Your task to perform on an android device: Search for Mexican restaurants on Maps Image 0: 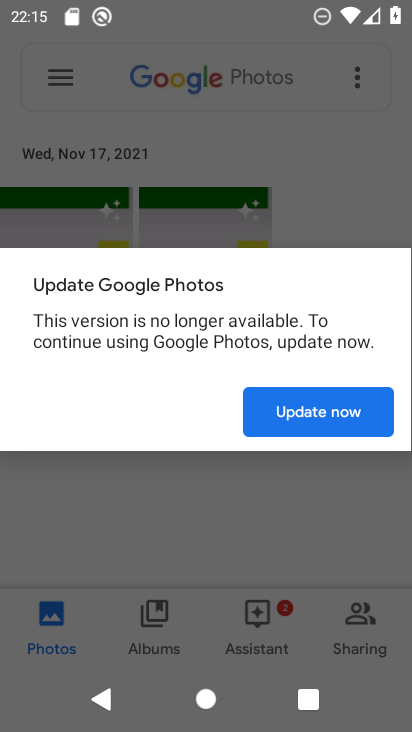
Step 0: press home button
Your task to perform on an android device: Search for Mexican restaurants on Maps Image 1: 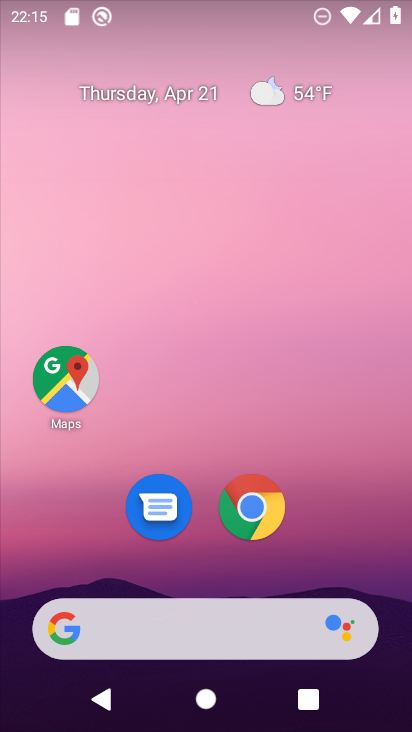
Step 1: click (60, 379)
Your task to perform on an android device: Search for Mexican restaurants on Maps Image 2: 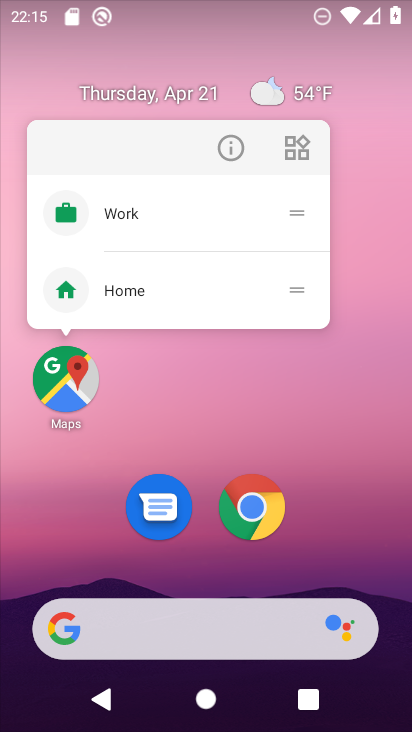
Step 2: click (70, 387)
Your task to perform on an android device: Search for Mexican restaurants on Maps Image 3: 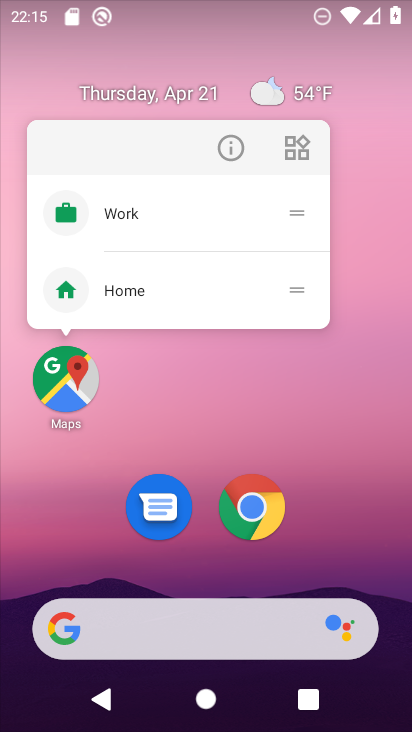
Step 3: click (67, 378)
Your task to perform on an android device: Search for Mexican restaurants on Maps Image 4: 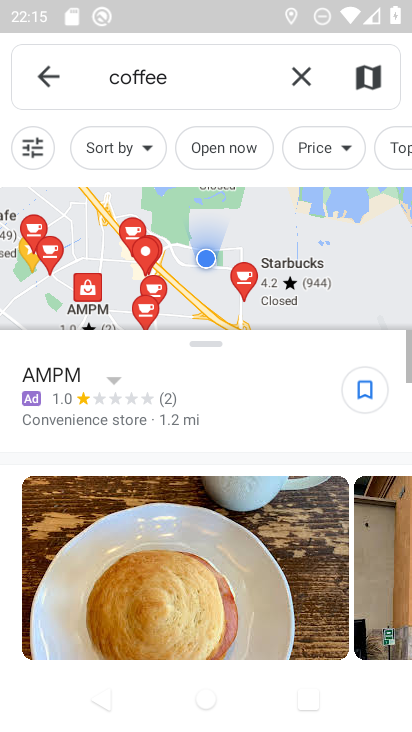
Step 4: click (299, 78)
Your task to perform on an android device: Search for Mexican restaurants on Maps Image 5: 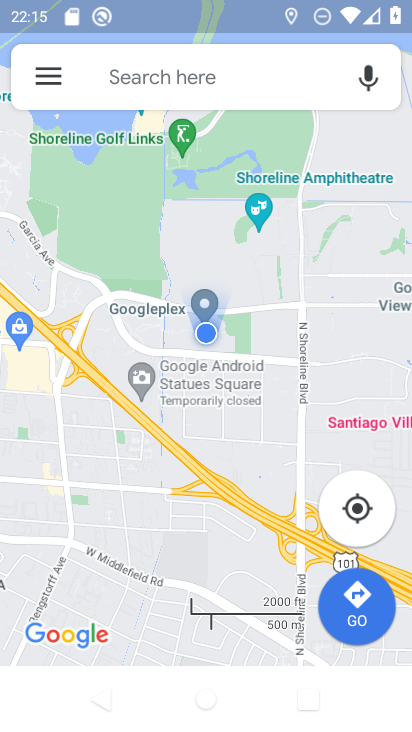
Step 5: click (169, 73)
Your task to perform on an android device: Search for Mexican restaurants on Maps Image 6: 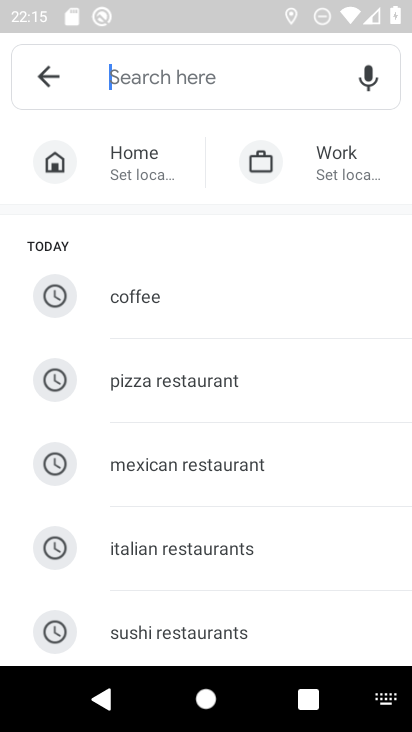
Step 6: click (222, 468)
Your task to perform on an android device: Search for Mexican restaurants on Maps Image 7: 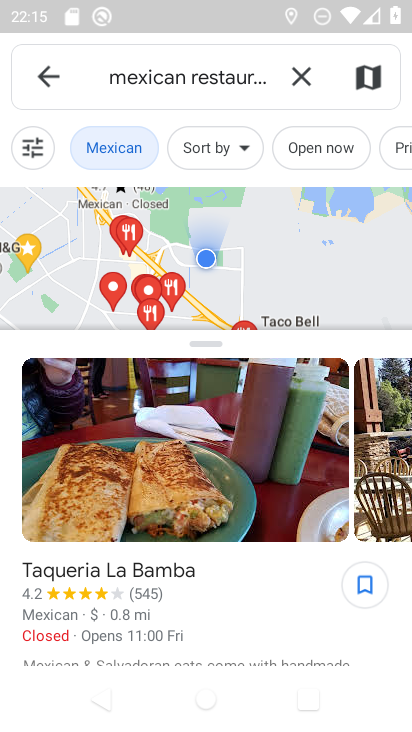
Step 7: task complete